Your task to perform on an android device: remove spam from my inbox in the gmail app Image 0: 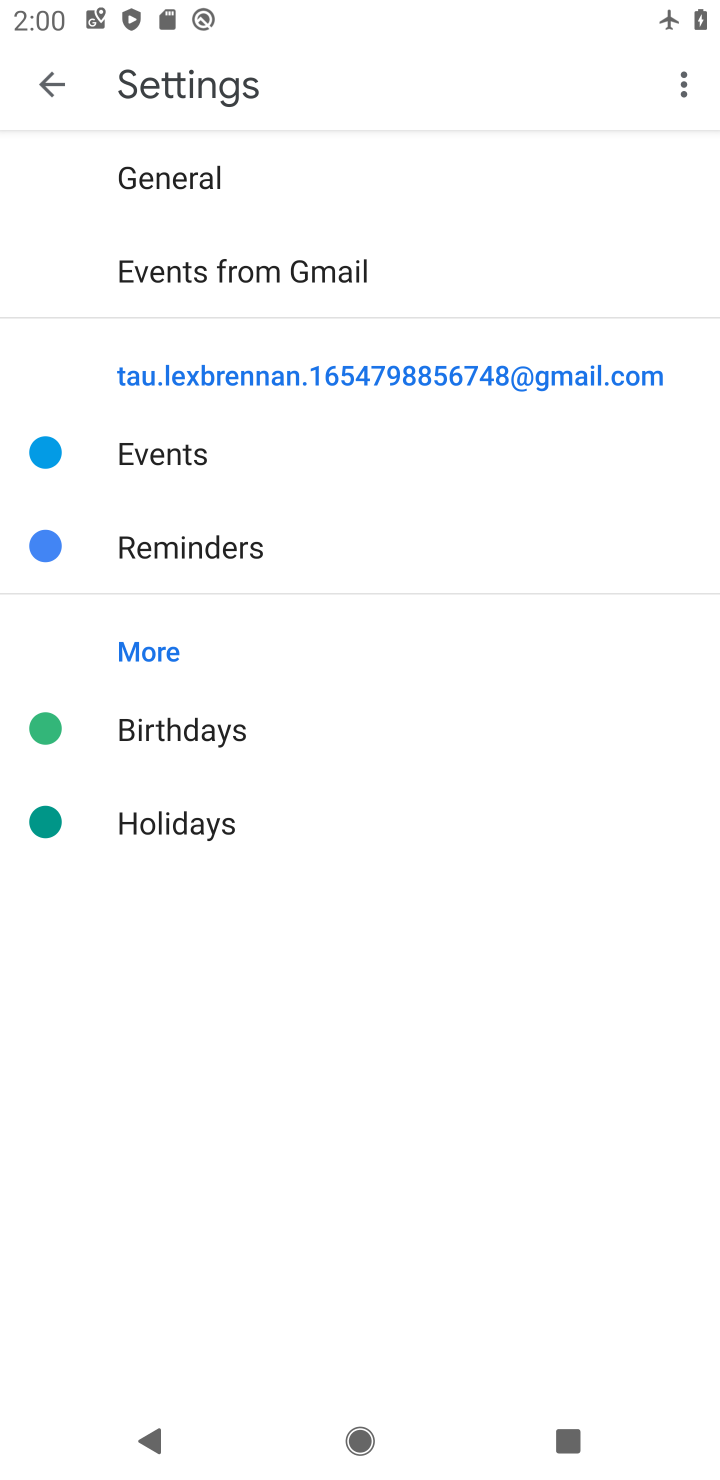
Step 0: press home button
Your task to perform on an android device: remove spam from my inbox in the gmail app Image 1: 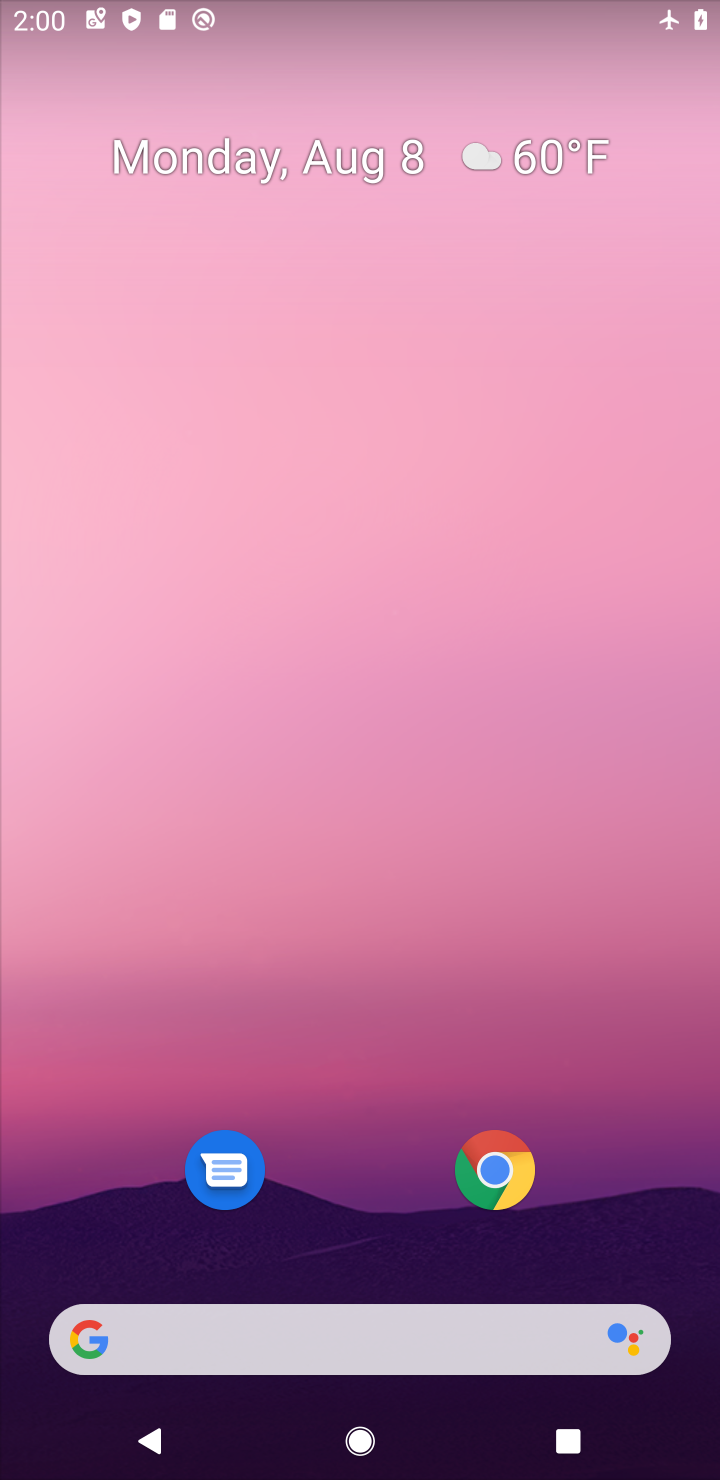
Step 1: drag from (334, 1040) to (294, 366)
Your task to perform on an android device: remove spam from my inbox in the gmail app Image 2: 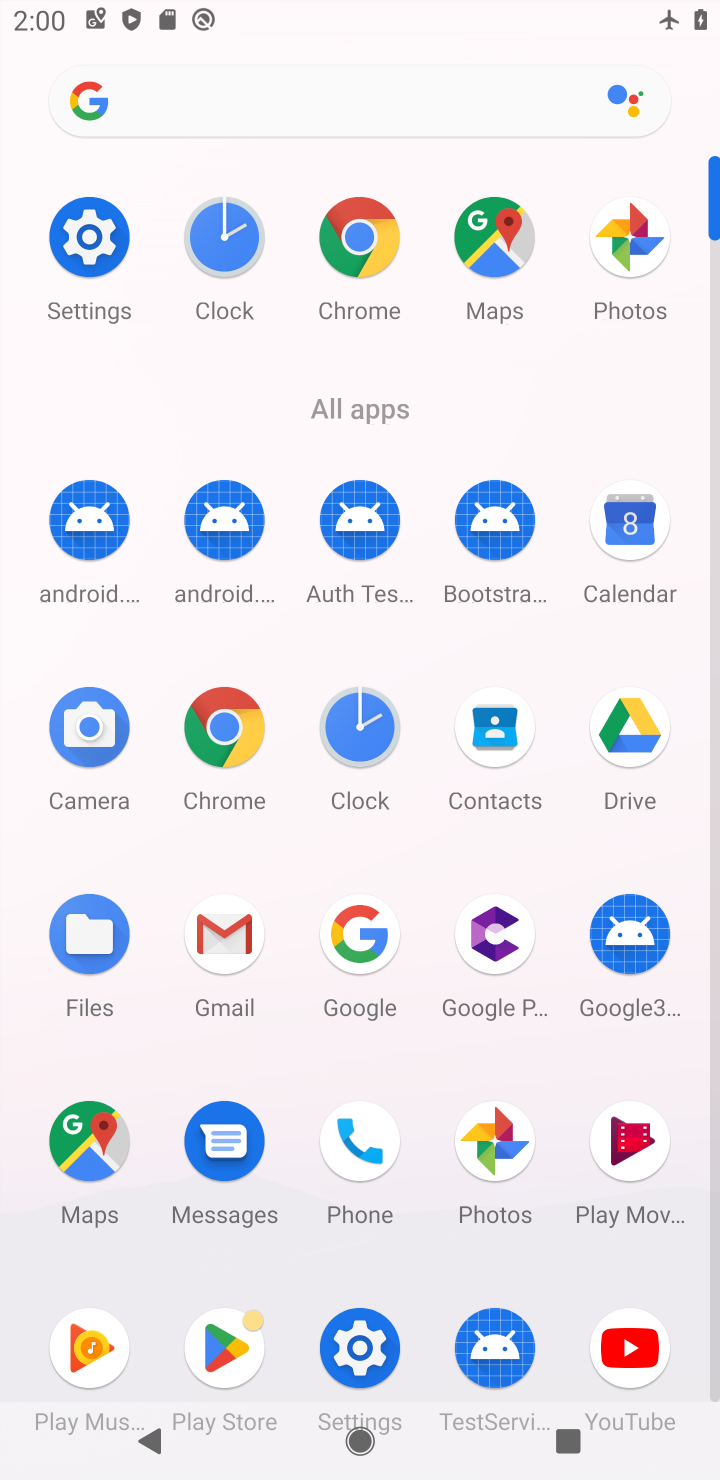
Step 2: click (227, 953)
Your task to perform on an android device: remove spam from my inbox in the gmail app Image 3: 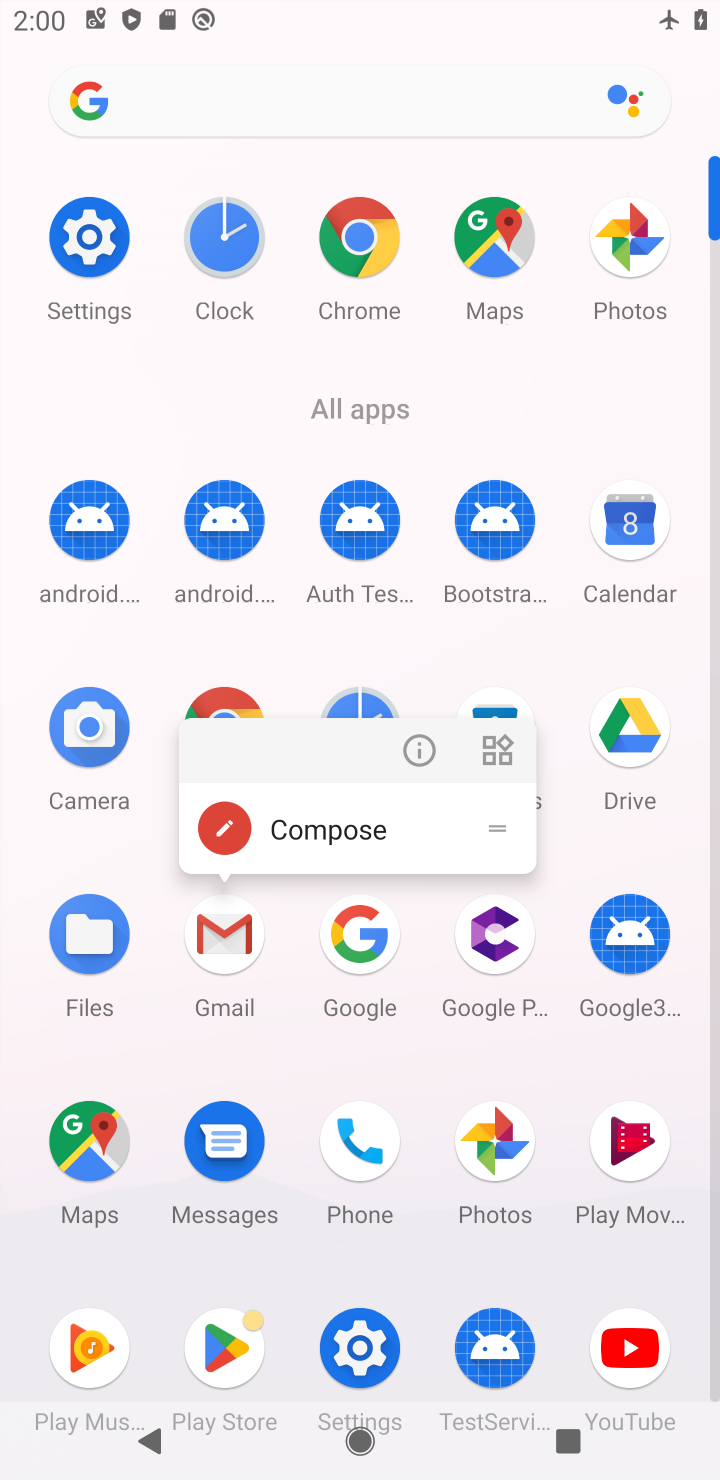
Step 3: click (227, 953)
Your task to perform on an android device: remove spam from my inbox in the gmail app Image 4: 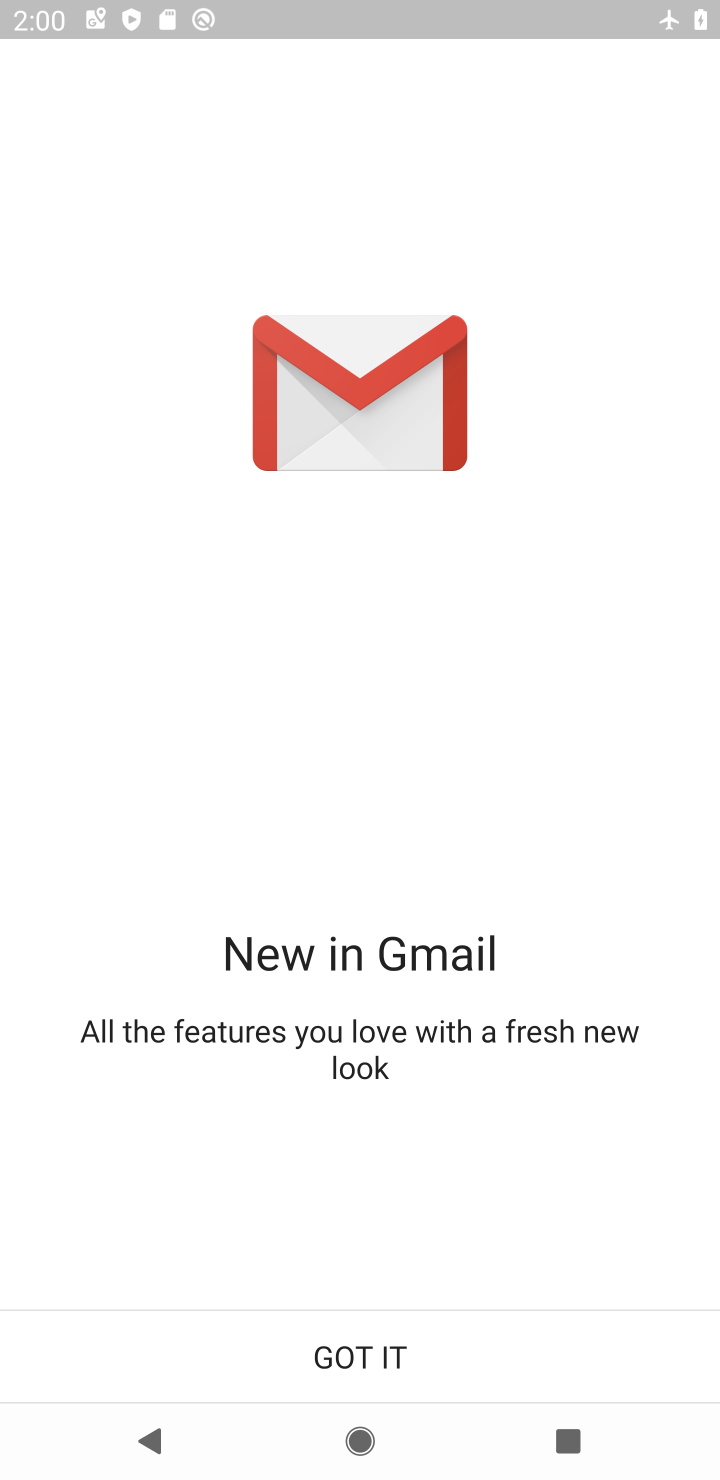
Step 4: click (409, 1360)
Your task to perform on an android device: remove spam from my inbox in the gmail app Image 5: 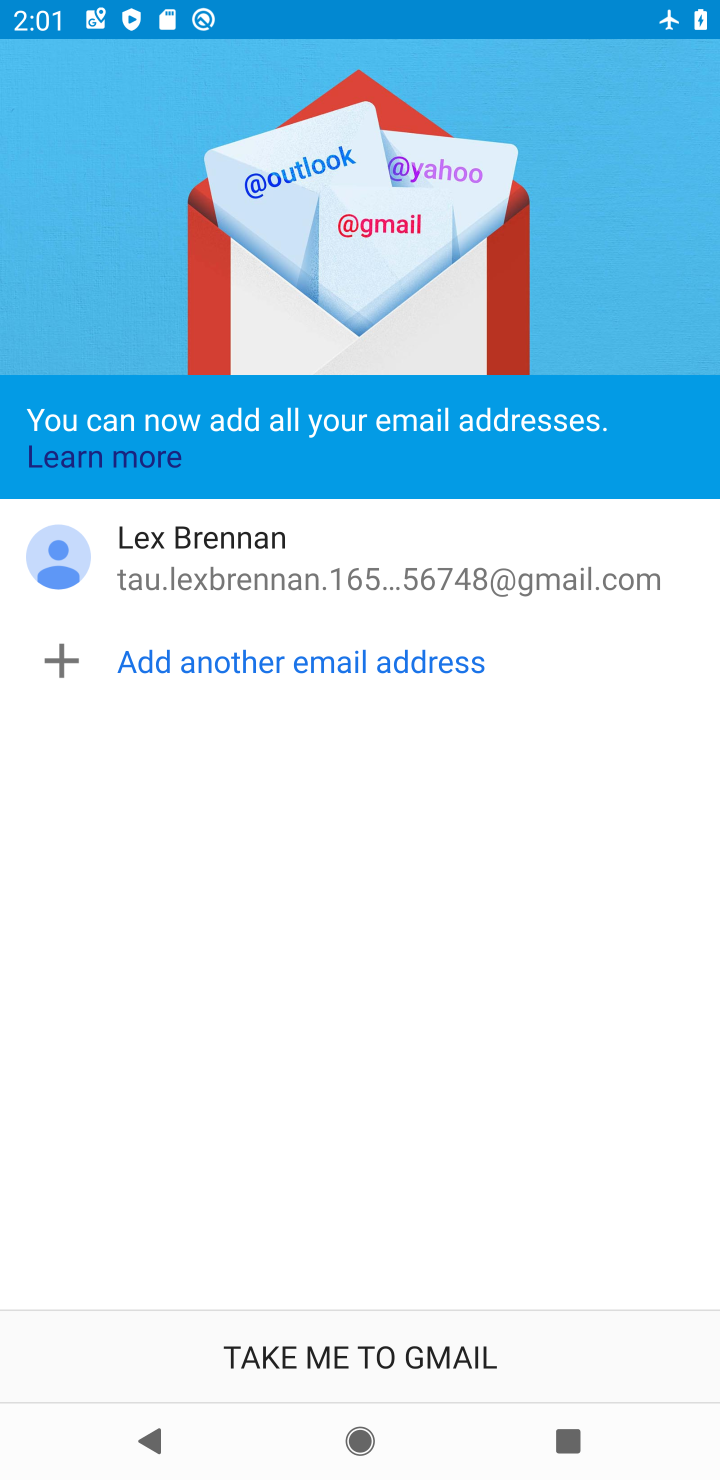
Step 5: click (400, 1358)
Your task to perform on an android device: remove spam from my inbox in the gmail app Image 6: 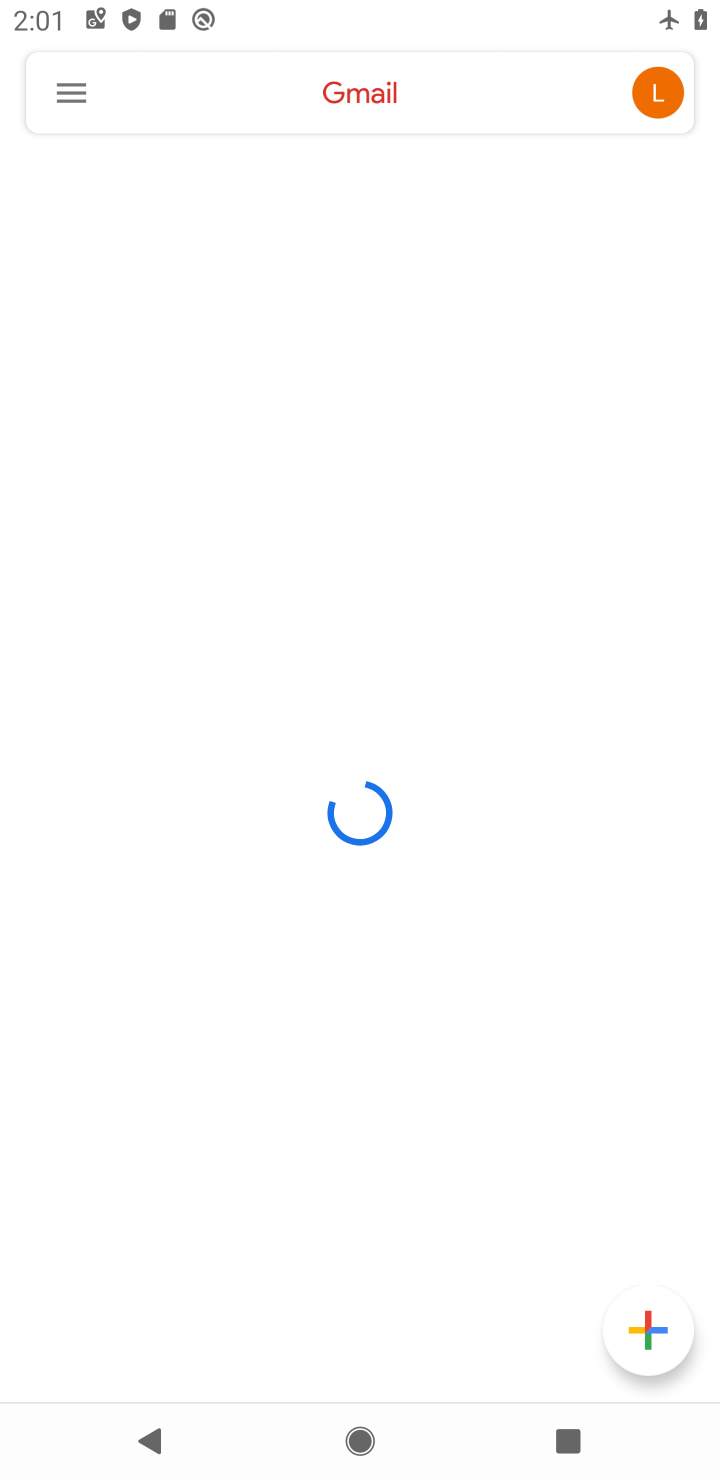
Step 6: click (66, 94)
Your task to perform on an android device: remove spam from my inbox in the gmail app Image 7: 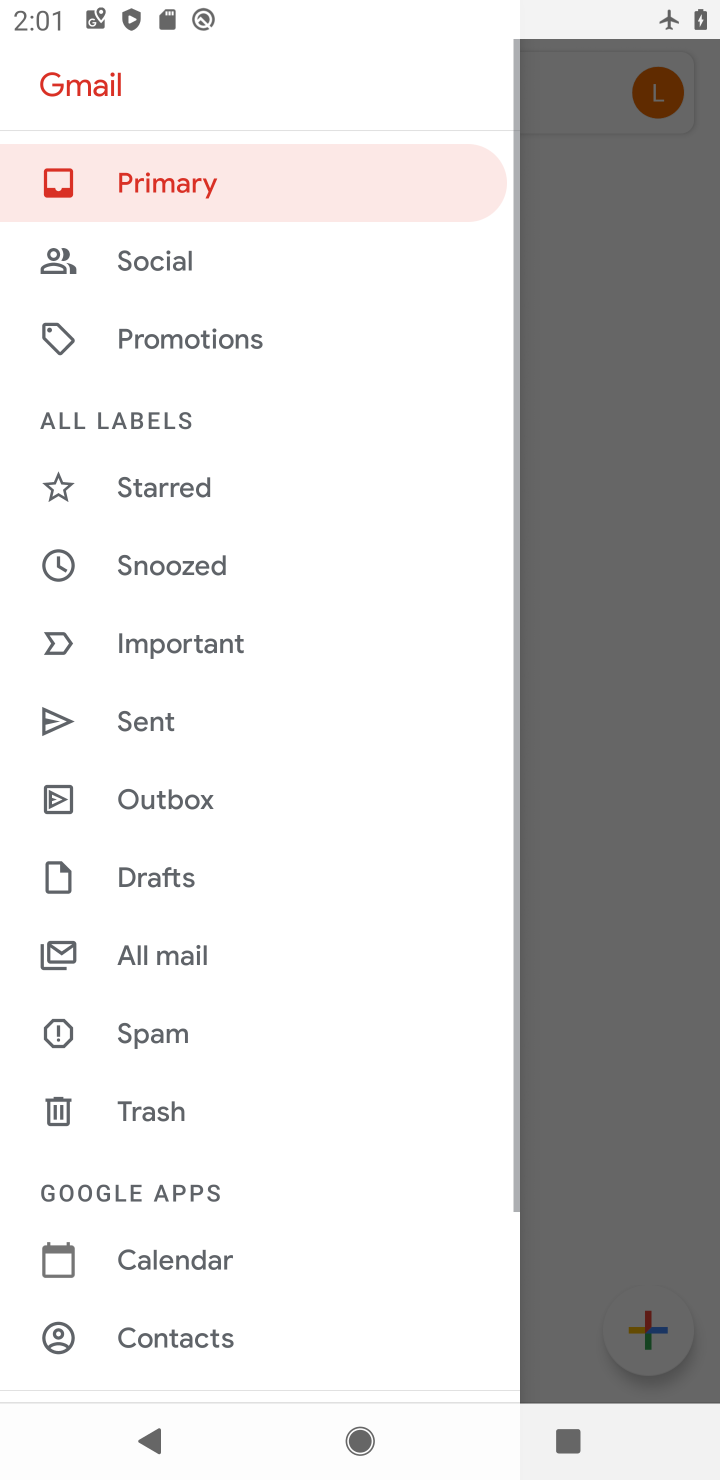
Step 7: click (566, 439)
Your task to perform on an android device: remove spam from my inbox in the gmail app Image 8: 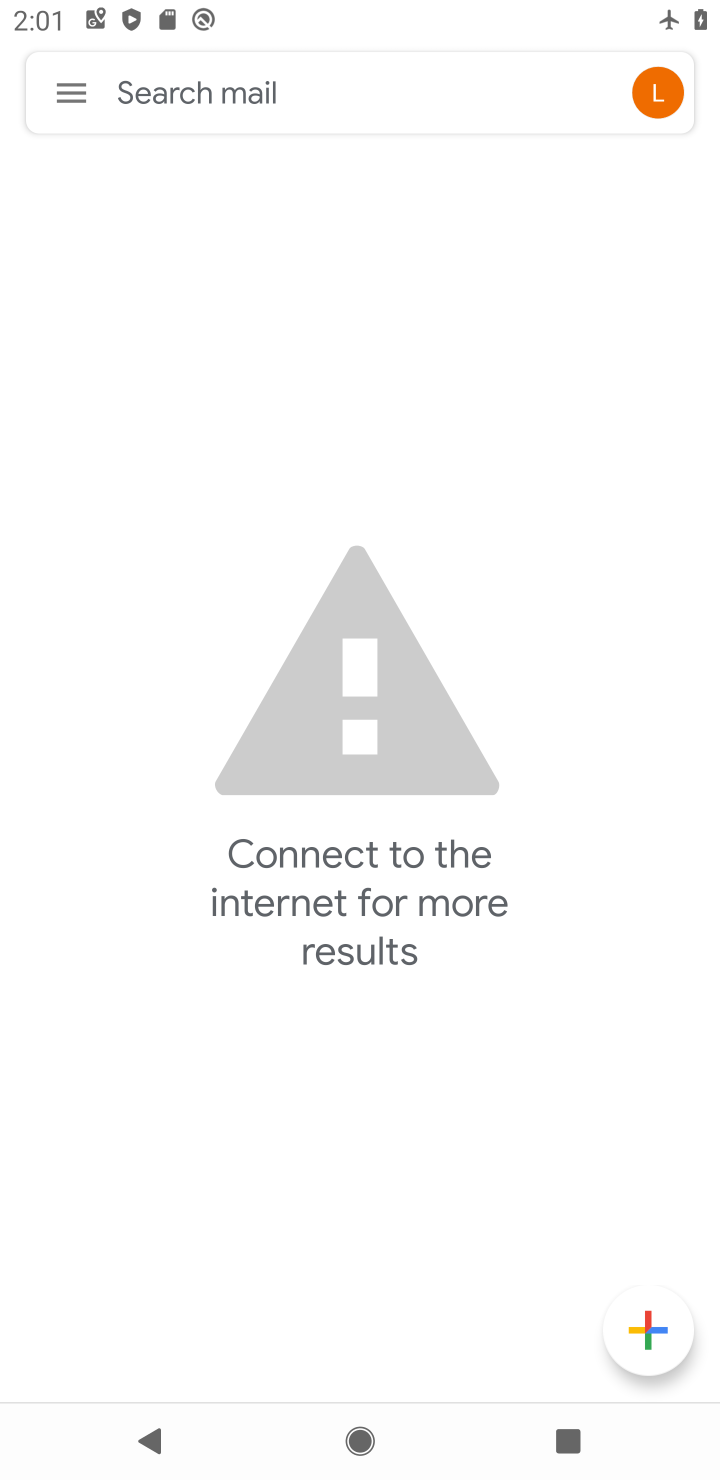
Step 8: click (43, 97)
Your task to perform on an android device: remove spam from my inbox in the gmail app Image 9: 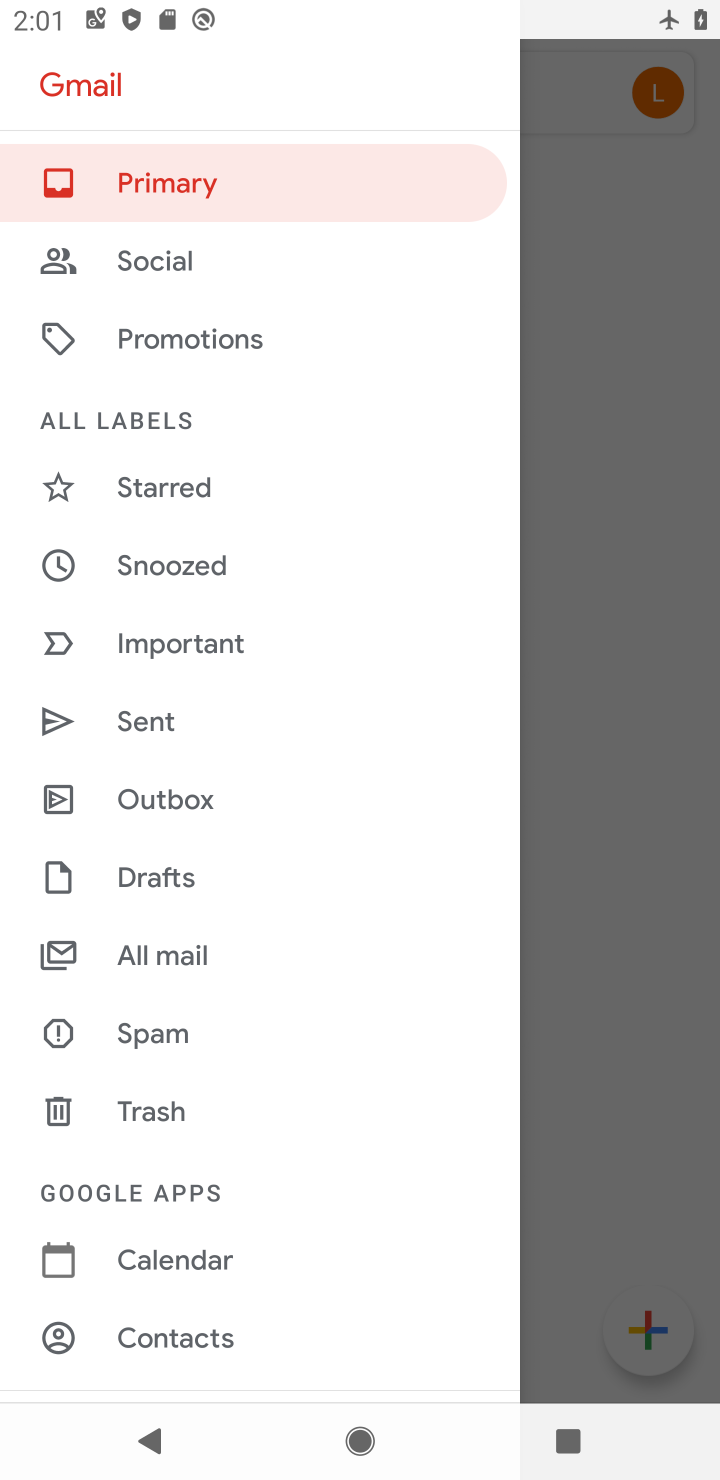
Step 9: click (210, 1033)
Your task to perform on an android device: remove spam from my inbox in the gmail app Image 10: 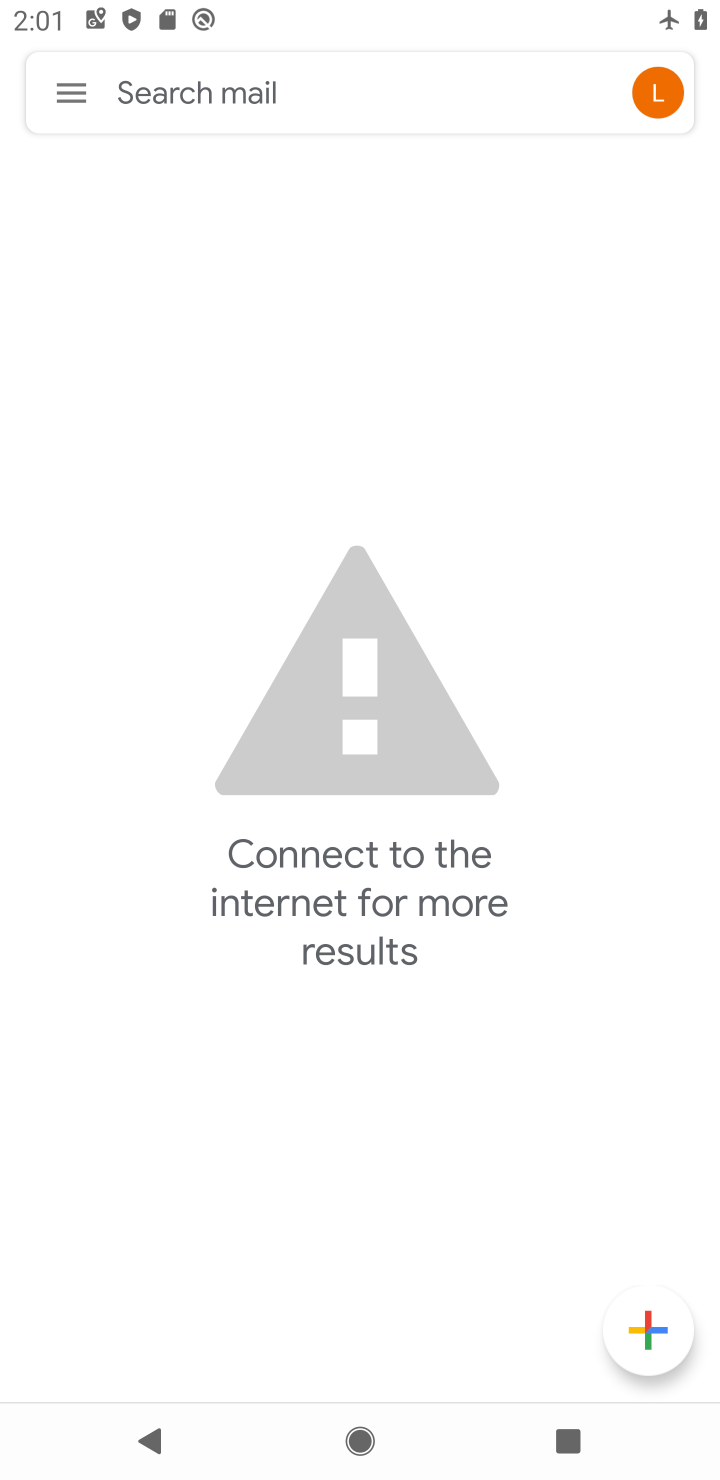
Step 10: task complete